Your task to perform on an android device: Set the phone to "Do not disturb". Image 0: 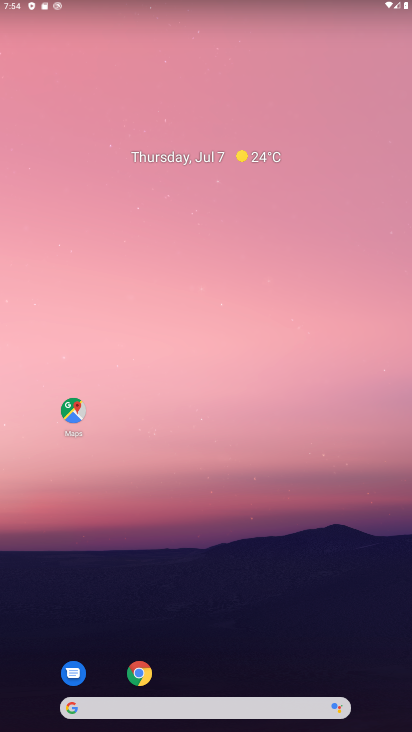
Step 0: drag from (179, 0) to (218, 558)
Your task to perform on an android device: Set the phone to "Do not disturb". Image 1: 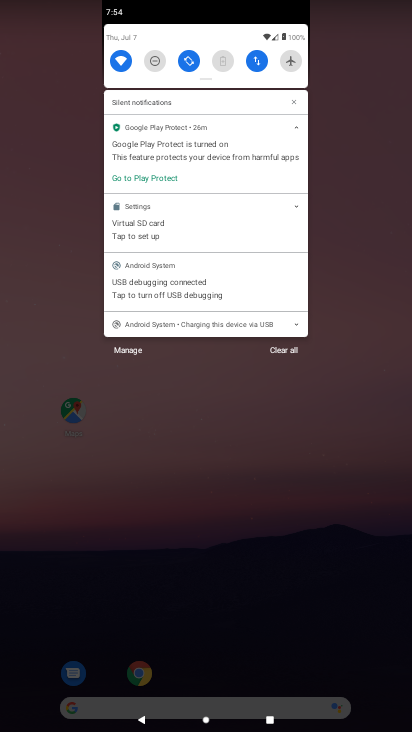
Step 1: click (147, 61)
Your task to perform on an android device: Set the phone to "Do not disturb". Image 2: 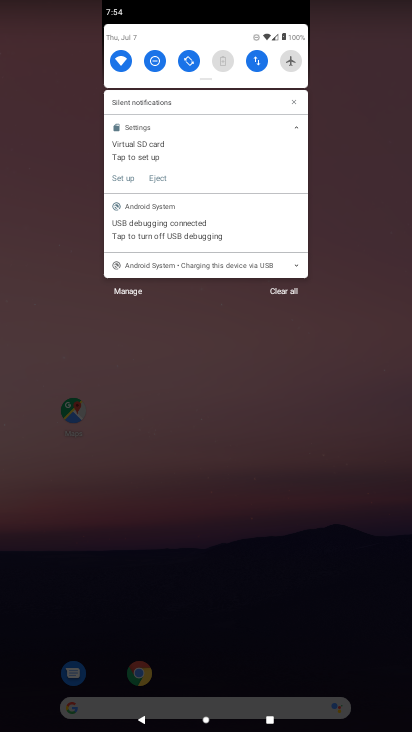
Step 2: task complete